Your task to perform on an android device: empty trash in the gmail app Image 0: 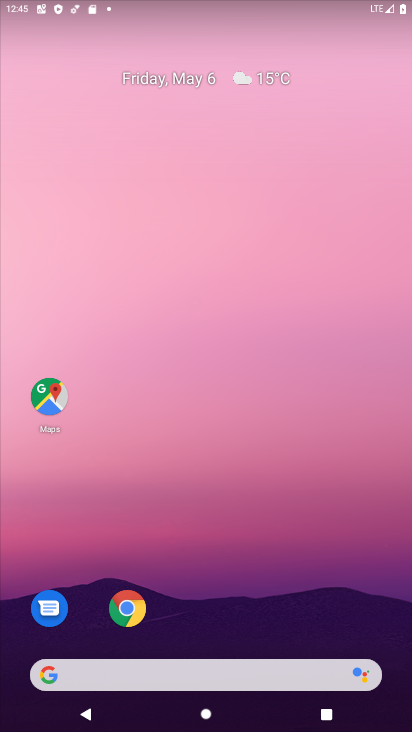
Step 0: drag from (200, 604) to (235, 396)
Your task to perform on an android device: empty trash in the gmail app Image 1: 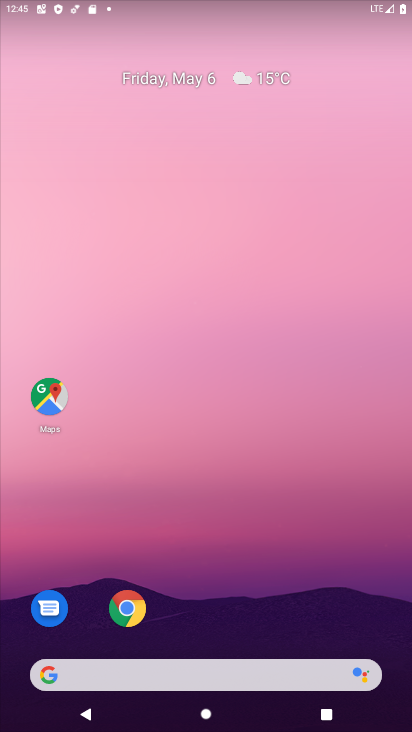
Step 1: drag from (196, 629) to (186, 13)
Your task to perform on an android device: empty trash in the gmail app Image 2: 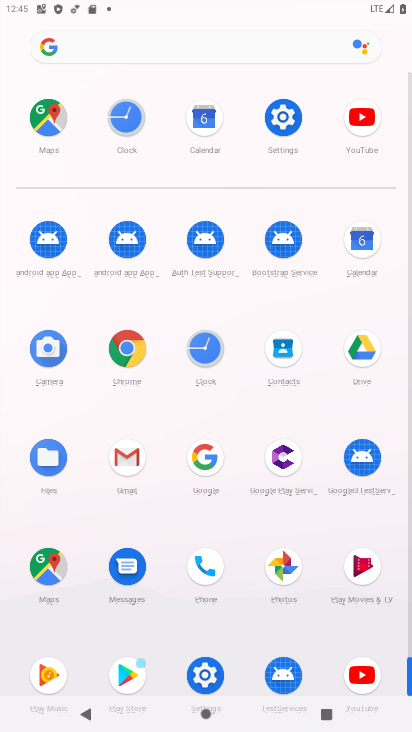
Step 2: click (129, 452)
Your task to perform on an android device: empty trash in the gmail app Image 3: 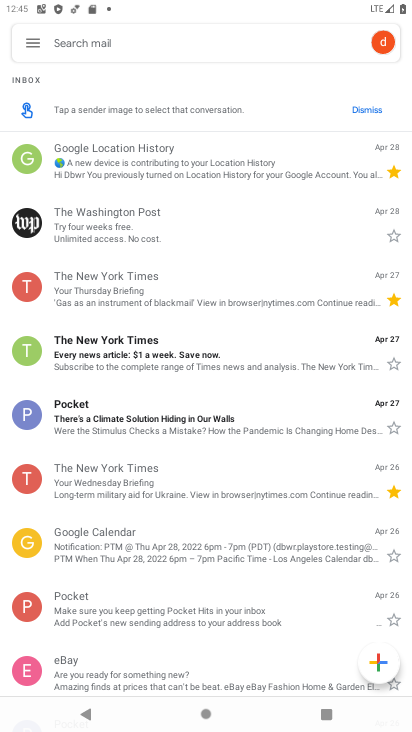
Step 3: click (28, 43)
Your task to perform on an android device: empty trash in the gmail app Image 4: 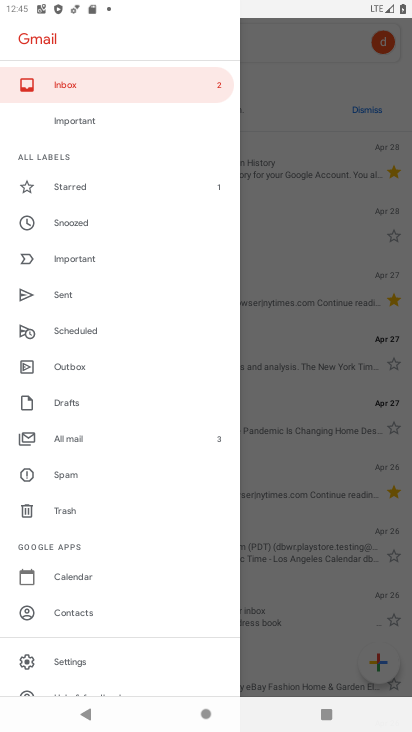
Step 4: click (85, 516)
Your task to perform on an android device: empty trash in the gmail app Image 5: 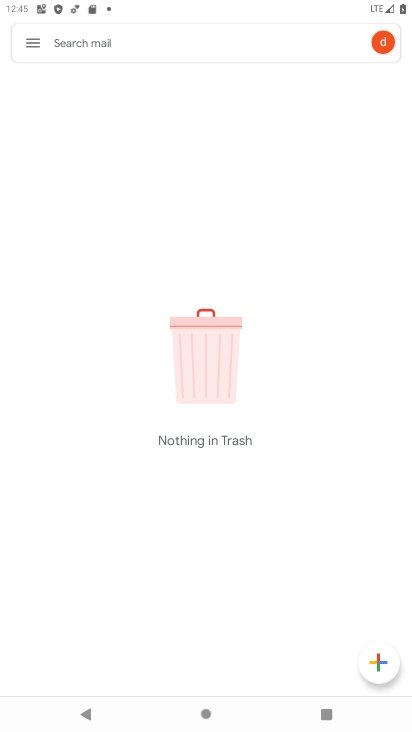
Step 5: click (232, 245)
Your task to perform on an android device: empty trash in the gmail app Image 6: 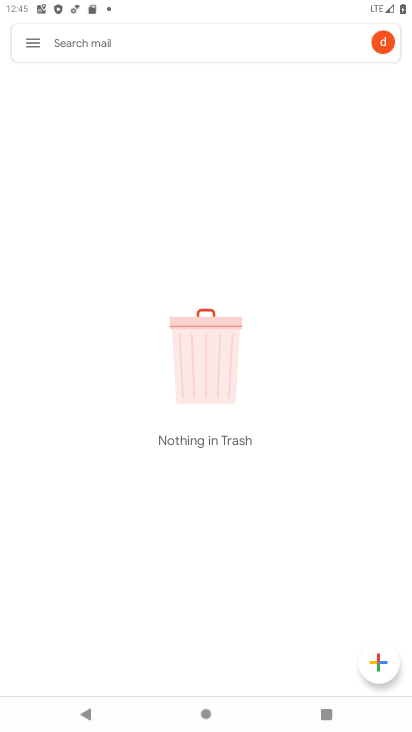
Step 6: task complete